Your task to perform on an android device: open app "Facebook" Image 0: 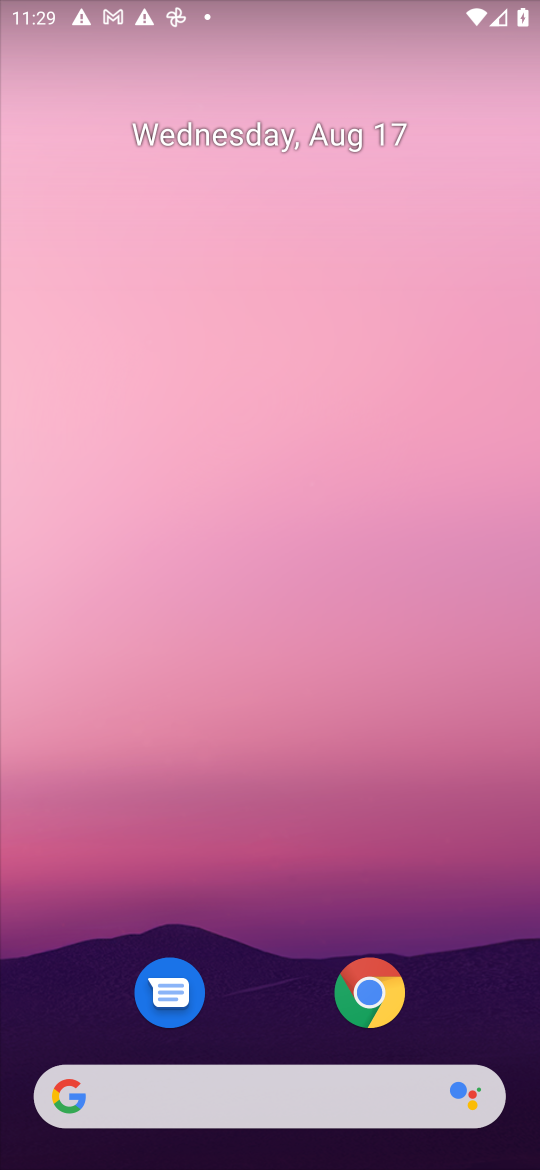
Step 0: drag from (464, 911) to (167, 80)
Your task to perform on an android device: open app "Facebook" Image 1: 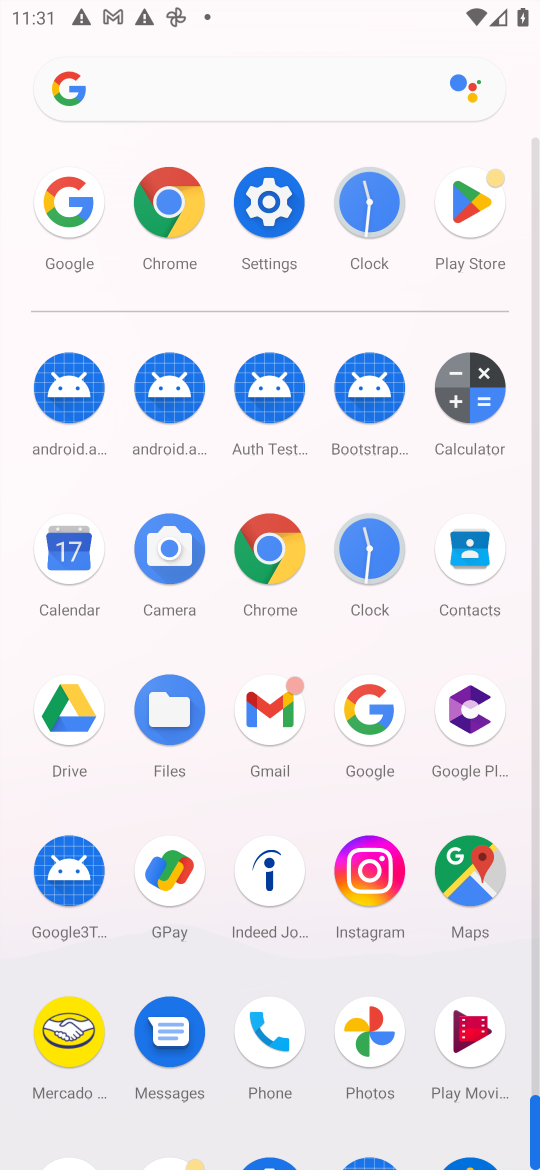
Step 1: click (472, 173)
Your task to perform on an android device: open app "Facebook" Image 2: 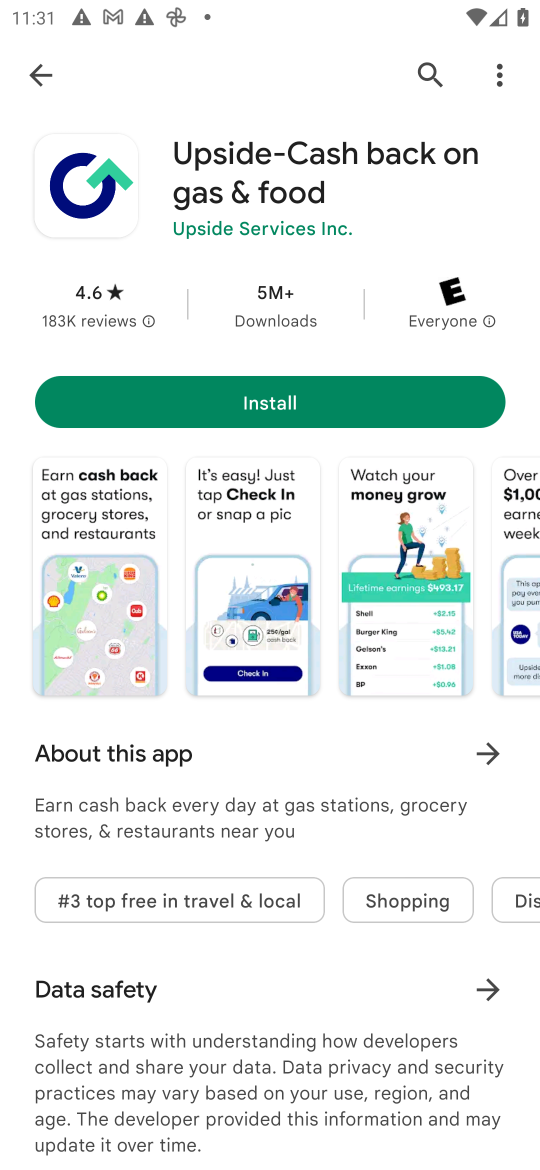
Step 2: press back button
Your task to perform on an android device: open app "Facebook" Image 3: 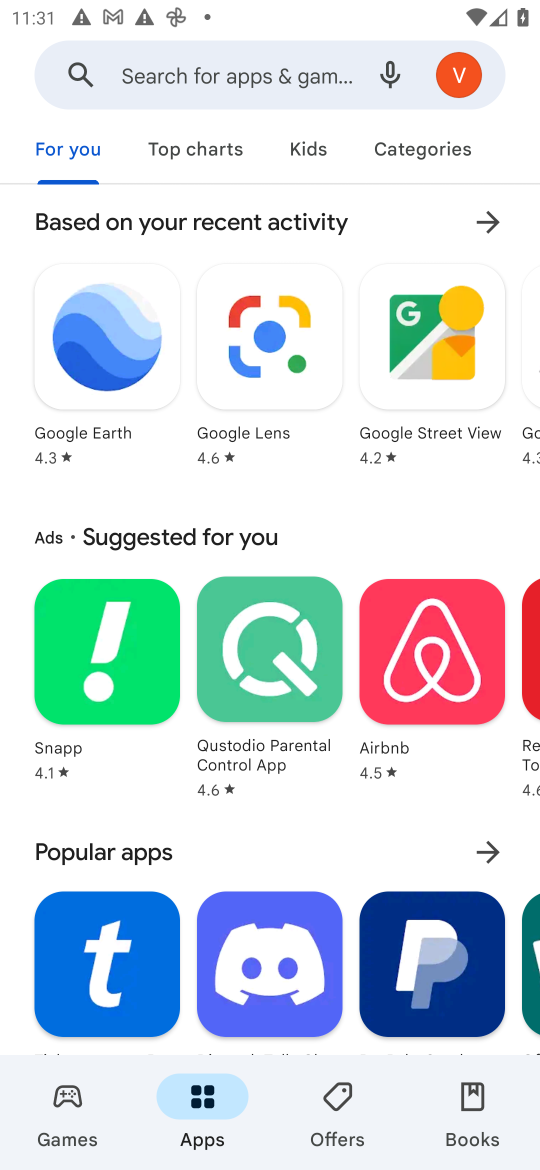
Step 3: click (142, 67)
Your task to perform on an android device: open app "Facebook" Image 4: 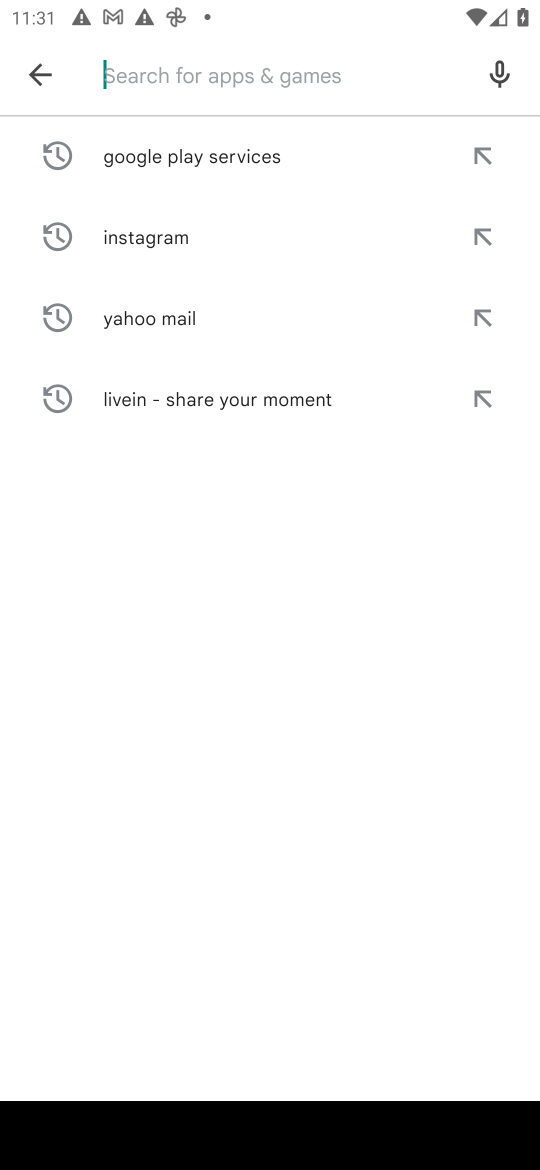
Step 4: type "Facebook"
Your task to perform on an android device: open app "Facebook" Image 5: 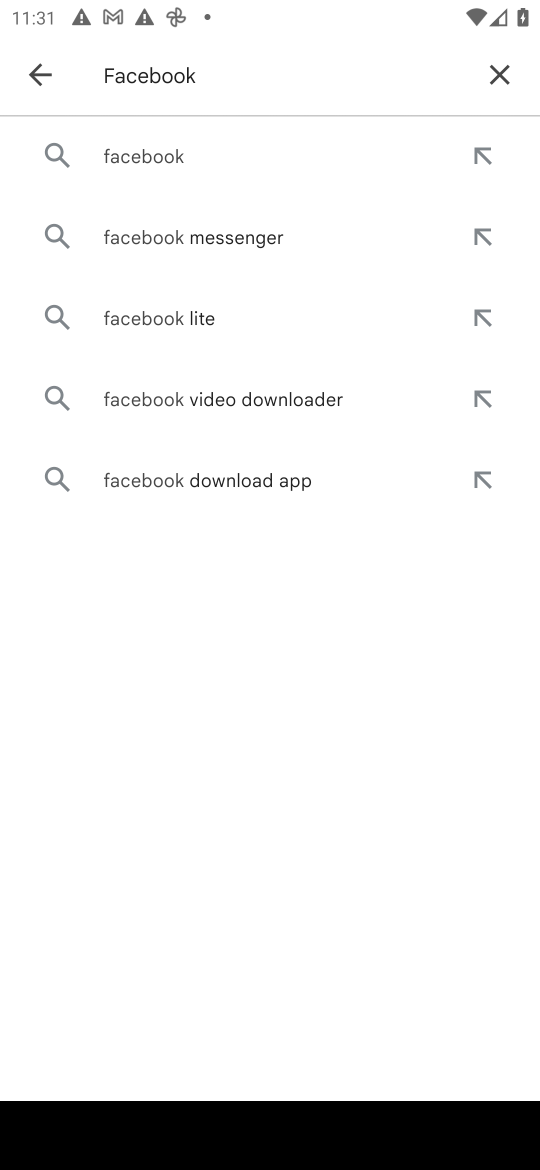
Step 5: click (158, 167)
Your task to perform on an android device: open app "Facebook" Image 6: 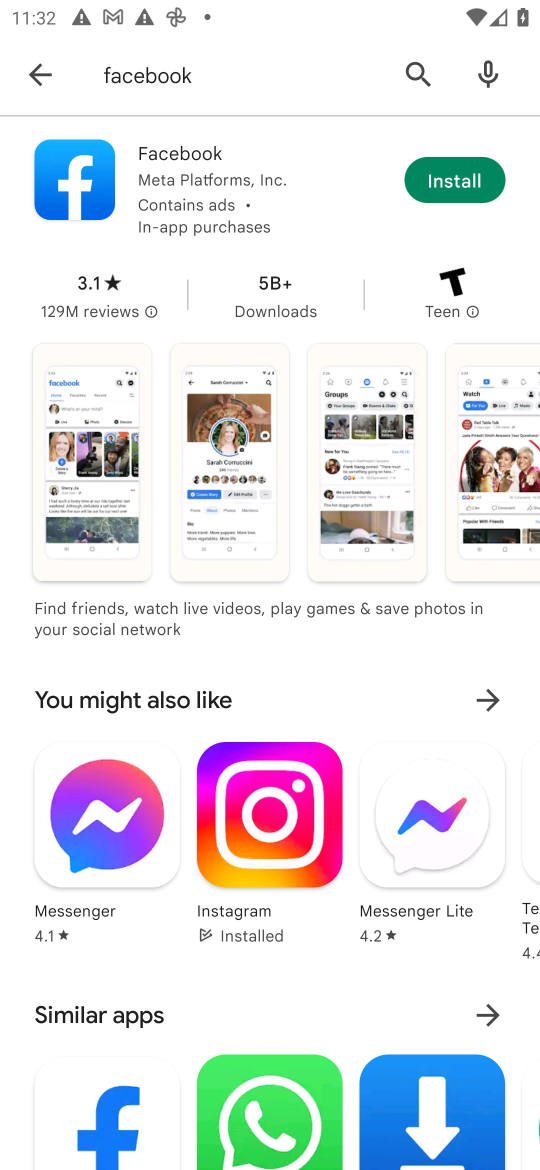
Step 6: task complete